Your task to perform on an android device: Go to internet settings Image 0: 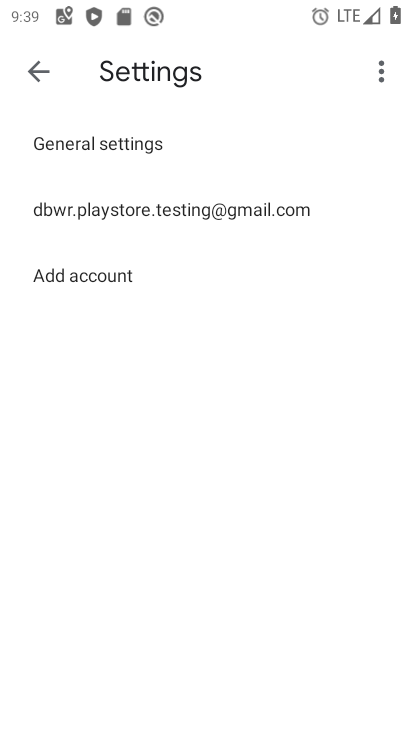
Step 0: press home button
Your task to perform on an android device: Go to internet settings Image 1: 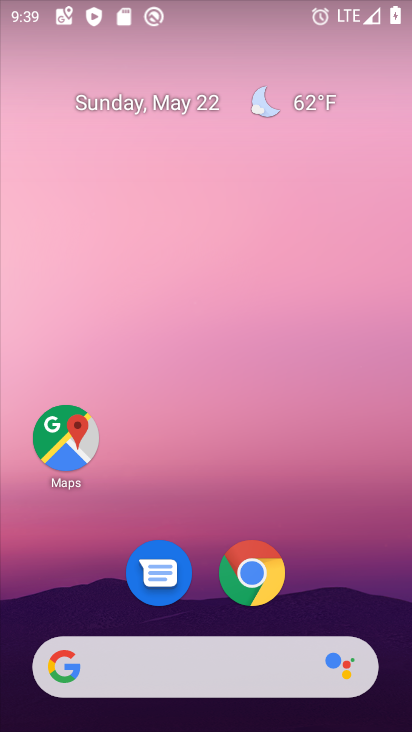
Step 1: drag from (298, 642) to (294, 98)
Your task to perform on an android device: Go to internet settings Image 2: 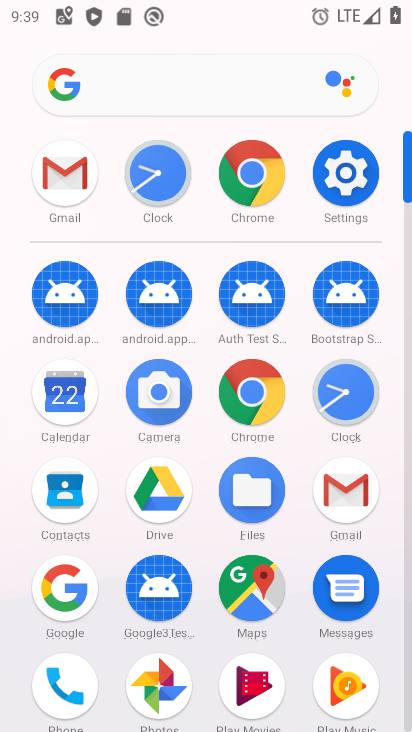
Step 2: click (353, 168)
Your task to perform on an android device: Go to internet settings Image 3: 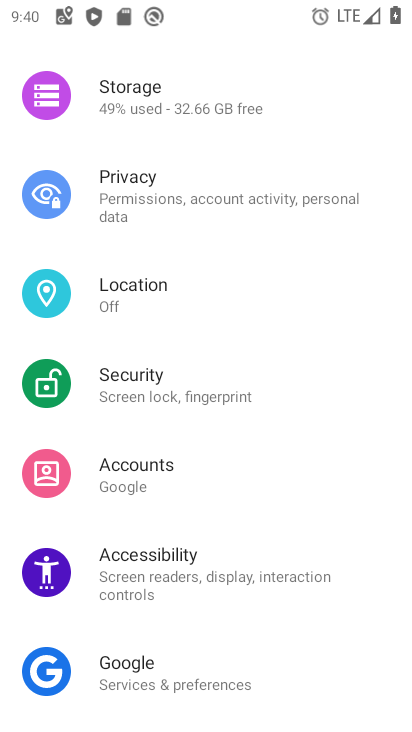
Step 3: drag from (234, 119) to (328, 717)
Your task to perform on an android device: Go to internet settings Image 4: 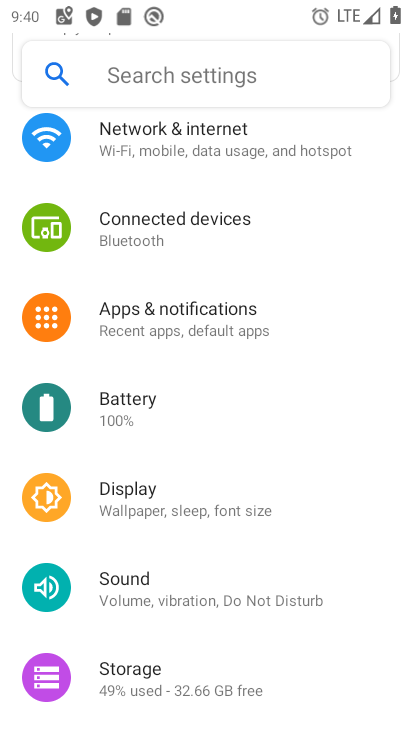
Step 4: click (185, 149)
Your task to perform on an android device: Go to internet settings Image 5: 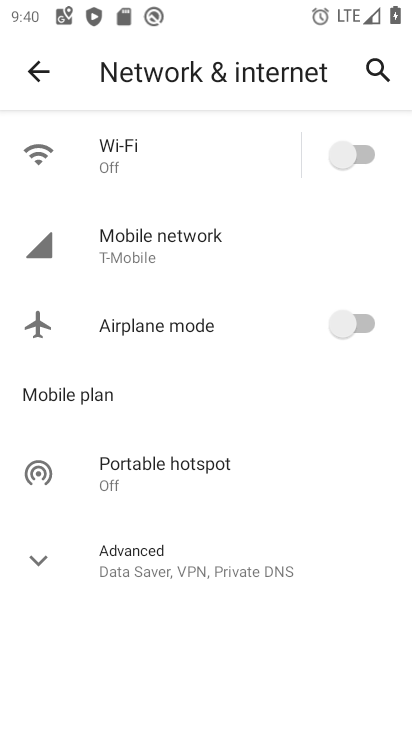
Step 5: task complete